Your task to perform on an android device: What is the news today? Image 0: 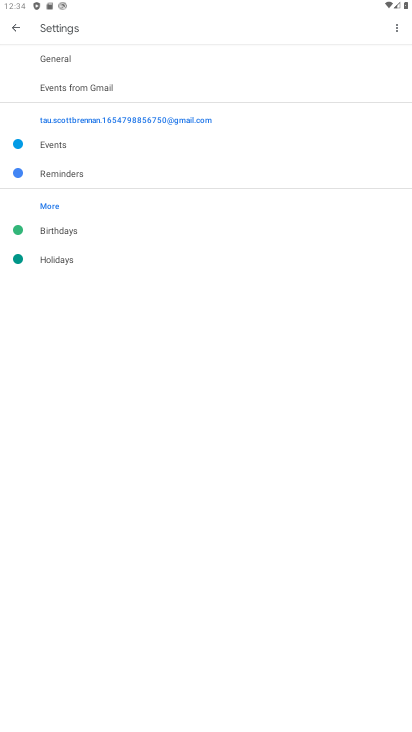
Step 0: press home button
Your task to perform on an android device: What is the news today? Image 1: 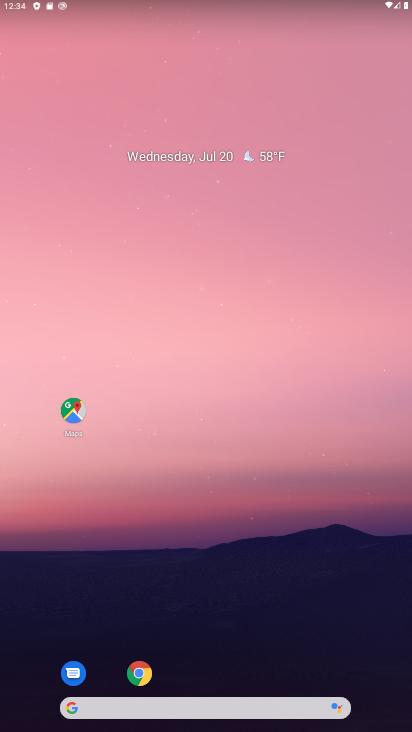
Step 1: drag from (10, 264) to (408, 298)
Your task to perform on an android device: What is the news today? Image 2: 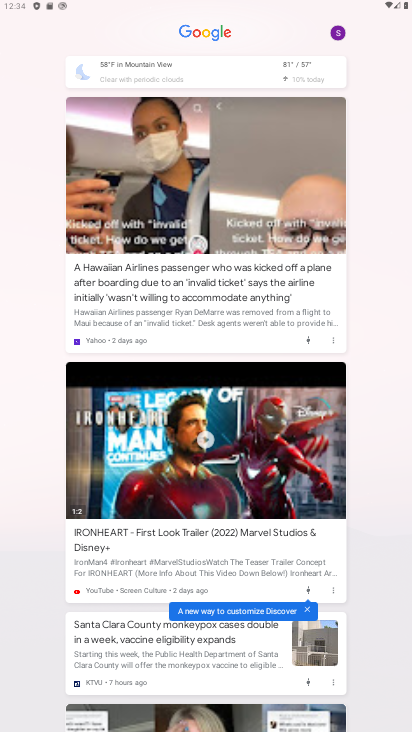
Step 2: drag from (220, 264) to (261, 223)
Your task to perform on an android device: What is the news today? Image 3: 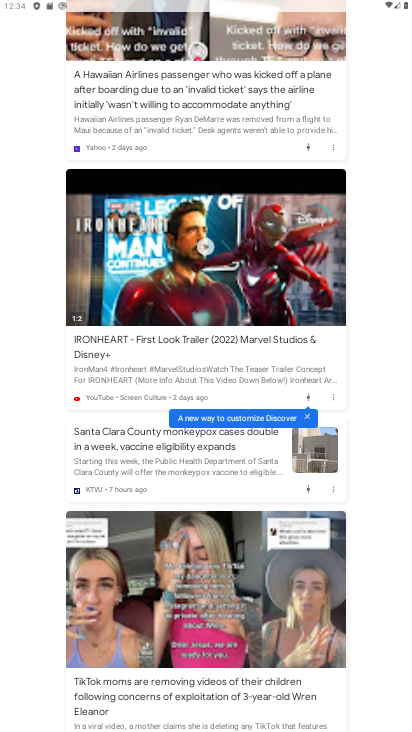
Step 3: click (277, 403)
Your task to perform on an android device: What is the news today? Image 4: 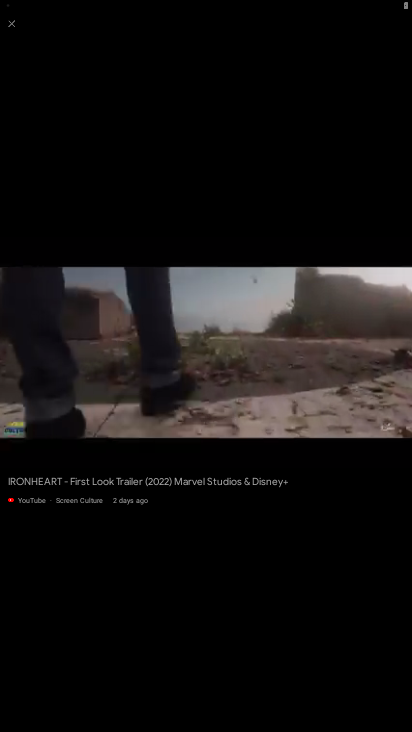
Step 4: task complete